Your task to perform on an android device: Open Google Image 0: 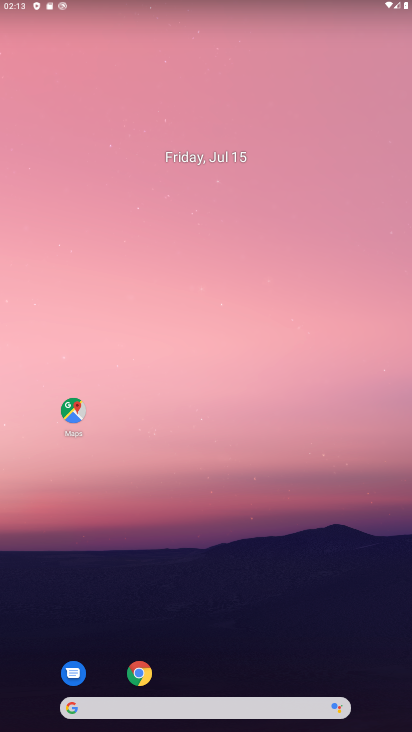
Step 0: drag from (329, 603) to (249, 32)
Your task to perform on an android device: Open Google Image 1: 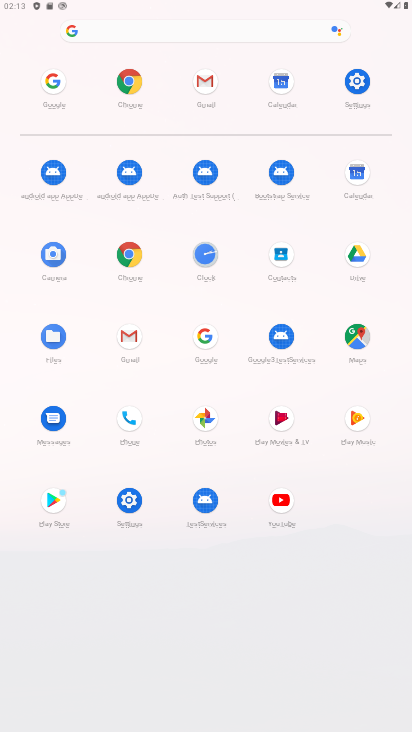
Step 1: click (206, 336)
Your task to perform on an android device: Open Google Image 2: 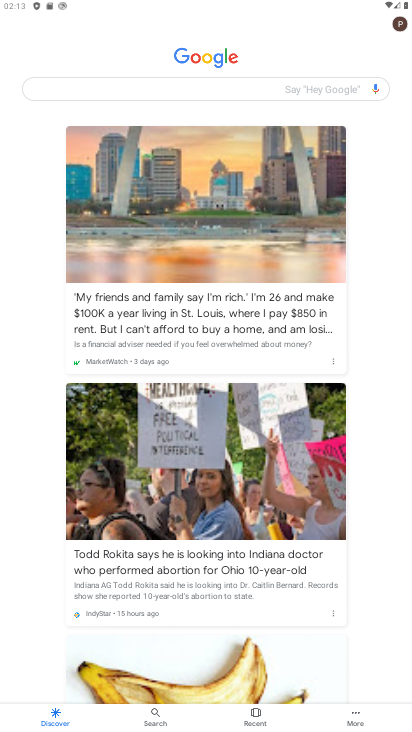
Step 2: task complete